Your task to perform on an android device: see sites visited before in the chrome app Image 0: 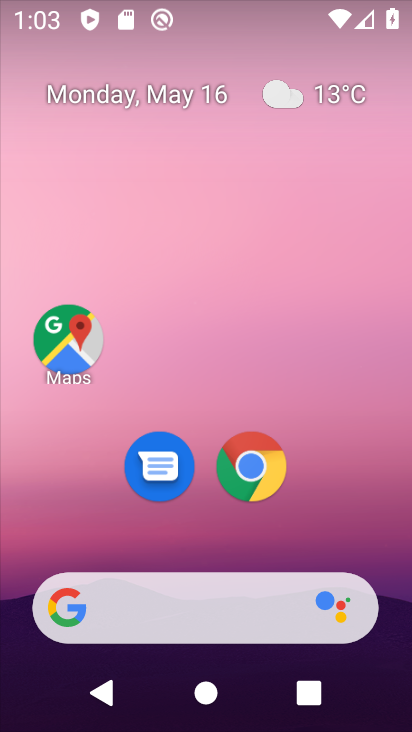
Step 0: click (253, 474)
Your task to perform on an android device: see sites visited before in the chrome app Image 1: 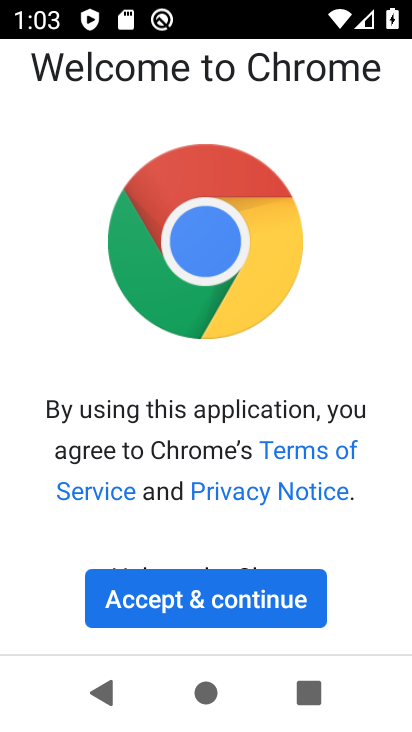
Step 1: click (295, 596)
Your task to perform on an android device: see sites visited before in the chrome app Image 2: 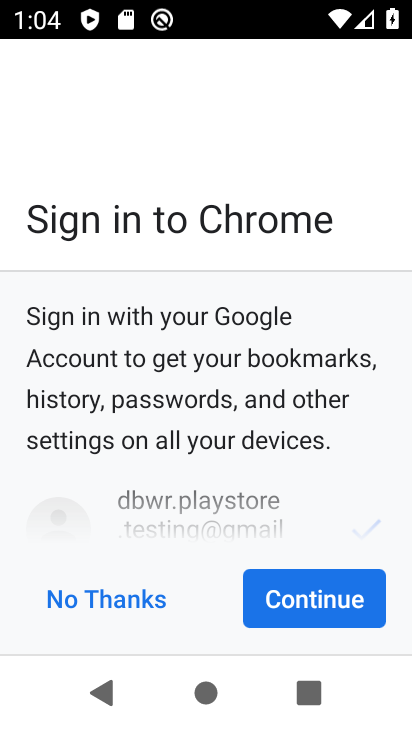
Step 2: click (299, 586)
Your task to perform on an android device: see sites visited before in the chrome app Image 3: 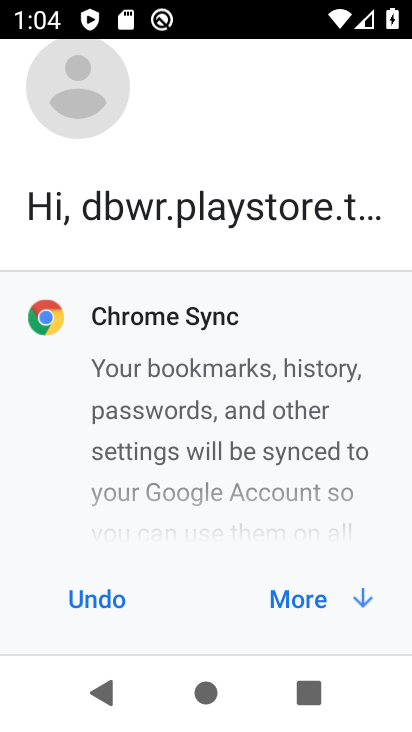
Step 3: click (299, 586)
Your task to perform on an android device: see sites visited before in the chrome app Image 4: 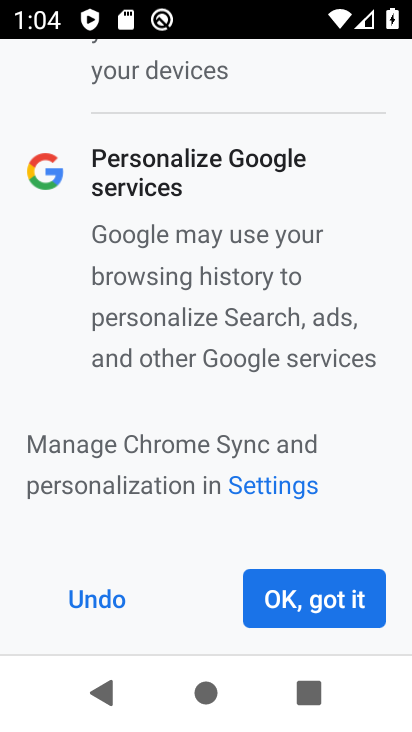
Step 4: click (299, 585)
Your task to perform on an android device: see sites visited before in the chrome app Image 5: 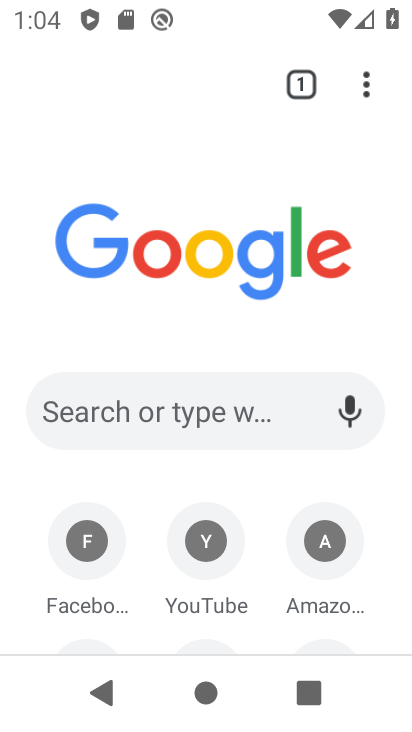
Step 5: click (363, 86)
Your task to perform on an android device: see sites visited before in the chrome app Image 6: 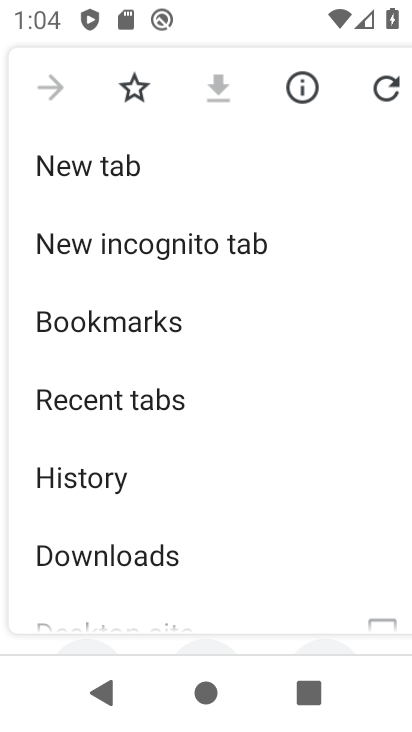
Step 6: drag from (233, 479) to (261, 203)
Your task to perform on an android device: see sites visited before in the chrome app Image 7: 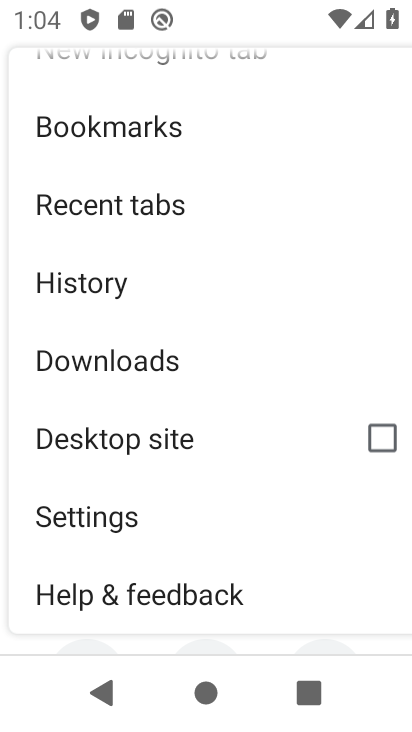
Step 7: drag from (239, 479) to (253, 217)
Your task to perform on an android device: see sites visited before in the chrome app Image 8: 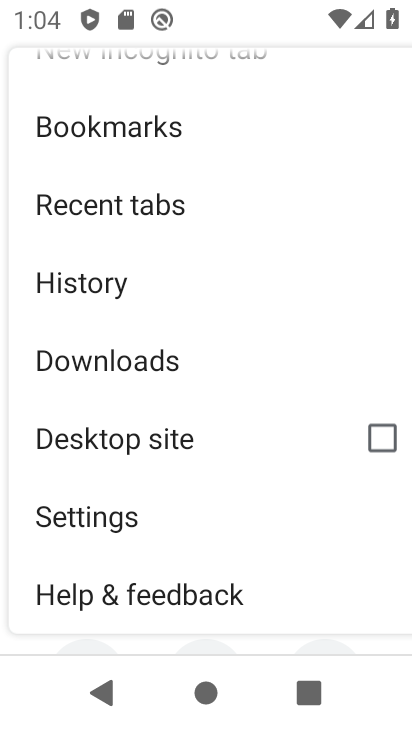
Step 8: drag from (249, 264) to (231, 460)
Your task to perform on an android device: see sites visited before in the chrome app Image 9: 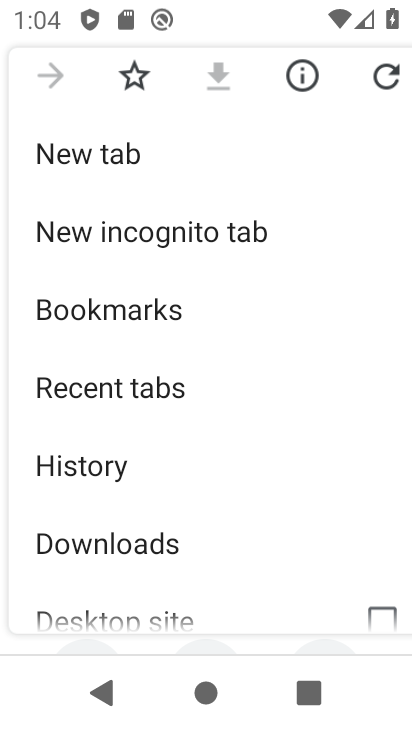
Step 9: click (158, 396)
Your task to perform on an android device: see sites visited before in the chrome app Image 10: 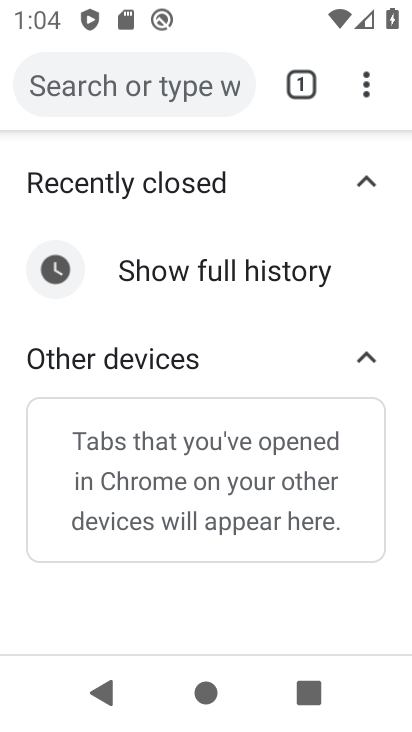
Step 10: drag from (246, 464) to (264, 253)
Your task to perform on an android device: see sites visited before in the chrome app Image 11: 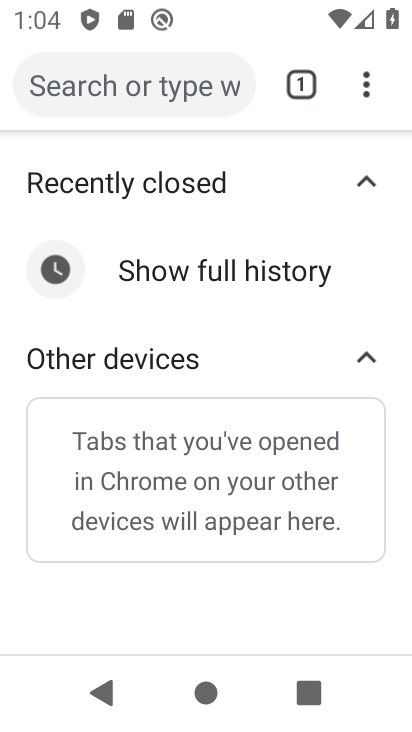
Step 11: click (359, 181)
Your task to perform on an android device: see sites visited before in the chrome app Image 12: 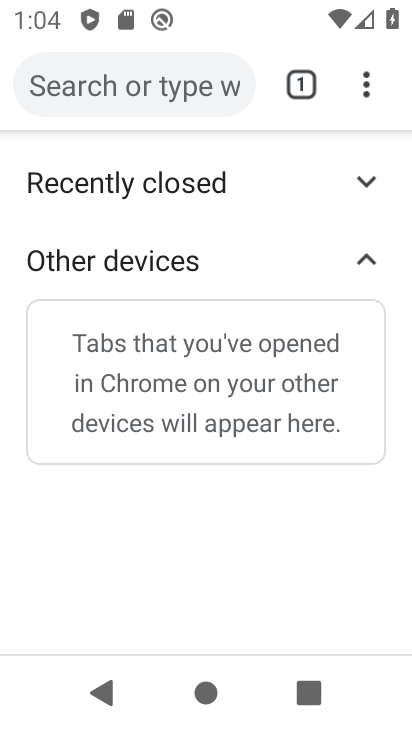
Step 12: click (371, 262)
Your task to perform on an android device: see sites visited before in the chrome app Image 13: 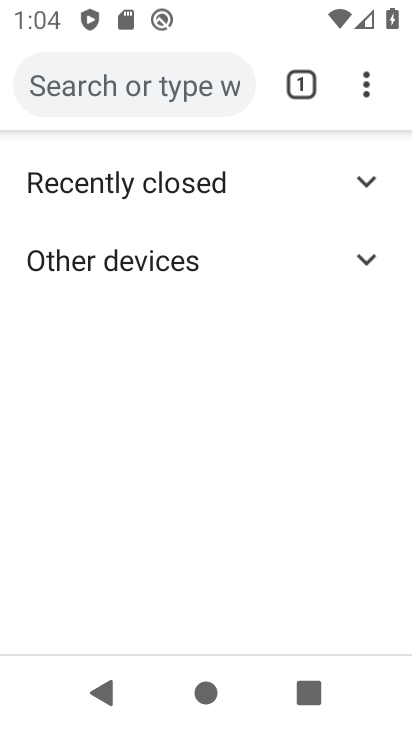
Step 13: click (371, 257)
Your task to perform on an android device: see sites visited before in the chrome app Image 14: 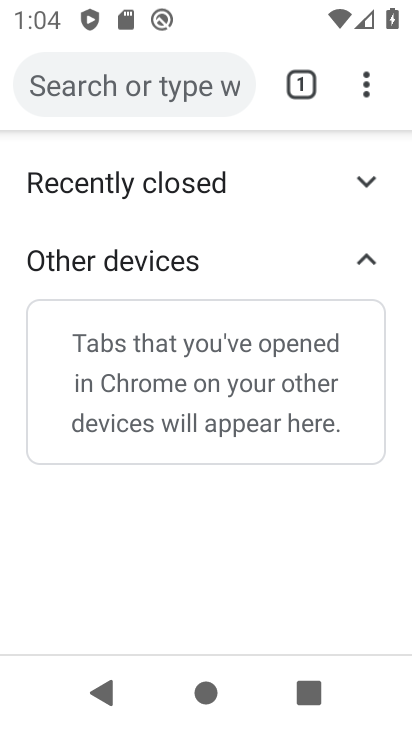
Step 14: click (368, 171)
Your task to perform on an android device: see sites visited before in the chrome app Image 15: 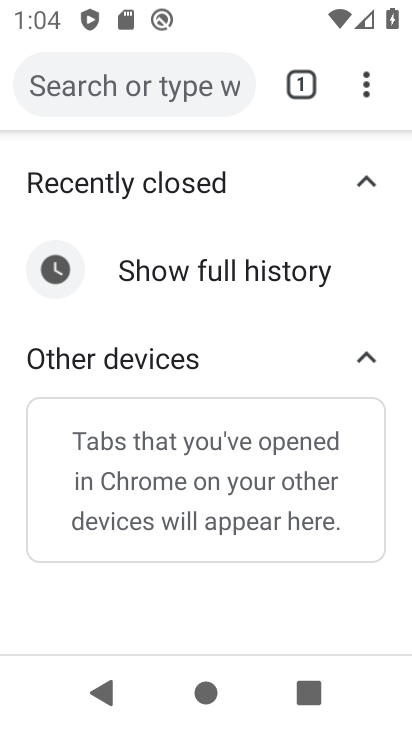
Step 15: task complete